Your task to perform on an android device: turn off notifications settings in the gmail app Image 0: 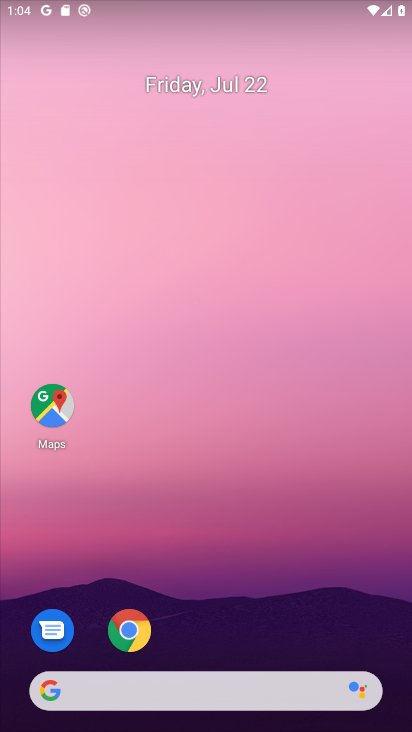
Step 0: drag from (221, 590) to (243, 0)
Your task to perform on an android device: turn off notifications settings in the gmail app Image 1: 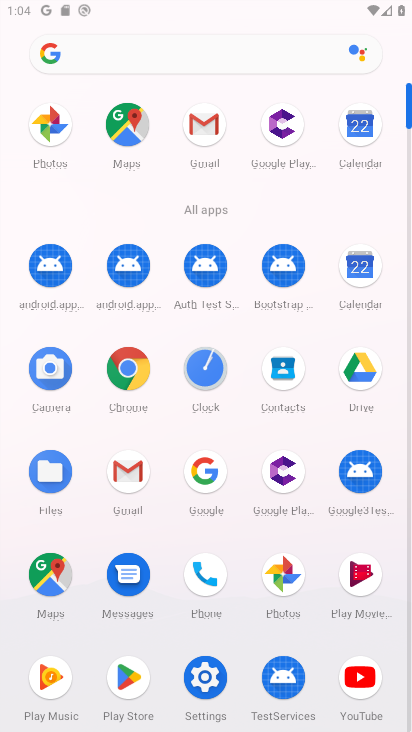
Step 1: click (206, 186)
Your task to perform on an android device: turn off notifications settings in the gmail app Image 2: 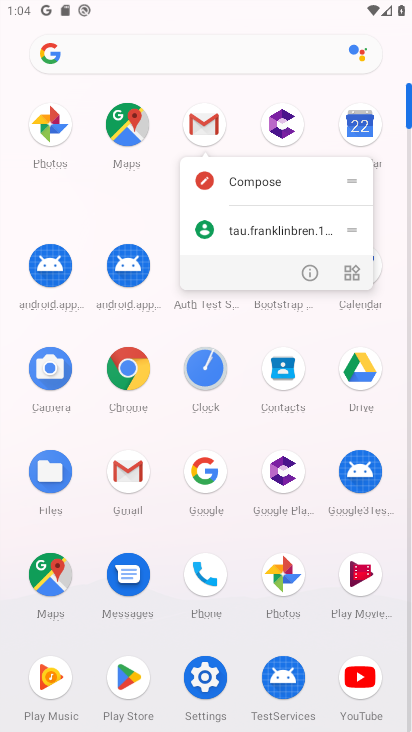
Step 2: click (207, 119)
Your task to perform on an android device: turn off notifications settings in the gmail app Image 3: 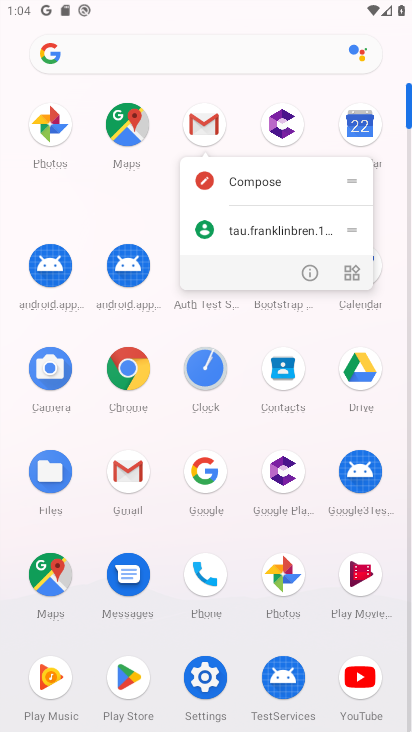
Step 3: click (301, 273)
Your task to perform on an android device: turn off notifications settings in the gmail app Image 4: 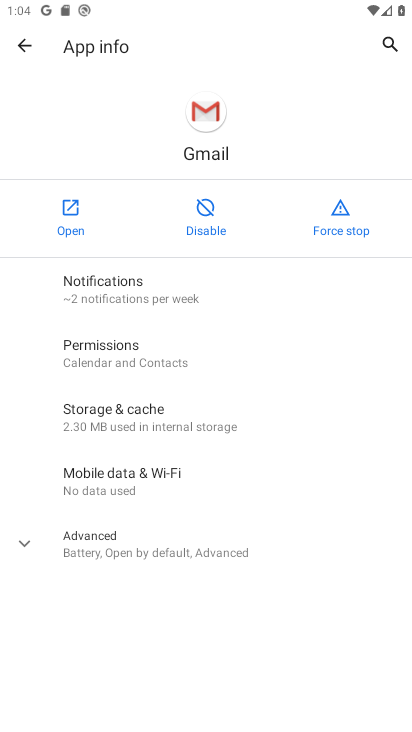
Step 4: click (113, 279)
Your task to perform on an android device: turn off notifications settings in the gmail app Image 5: 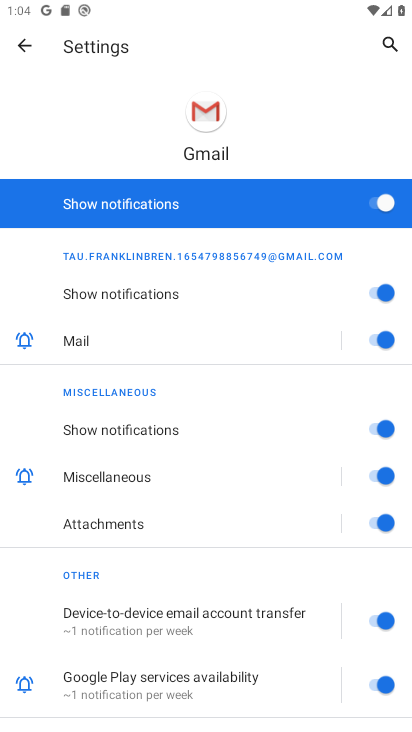
Step 5: click (378, 202)
Your task to perform on an android device: turn off notifications settings in the gmail app Image 6: 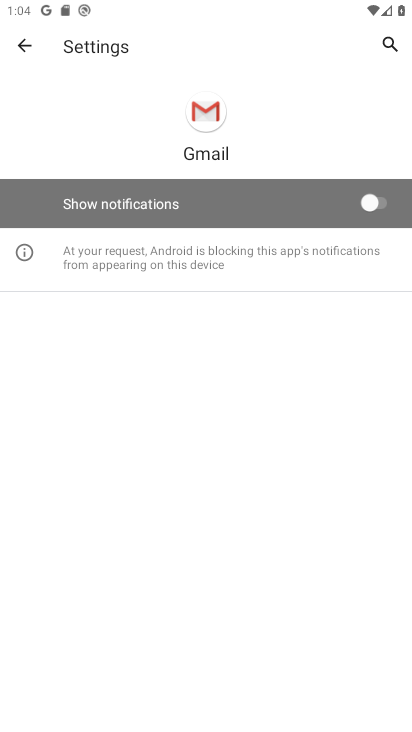
Step 6: task complete